Your task to perform on an android device: Go to battery settings Image 0: 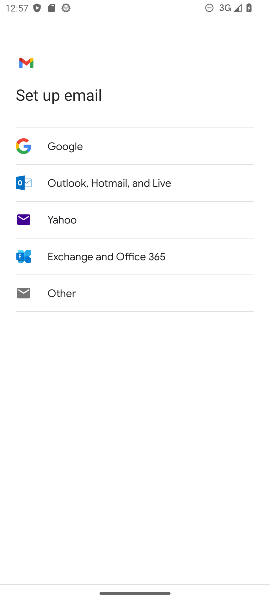
Step 0: press home button
Your task to perform on an android device: Go to battery settings Image 1: 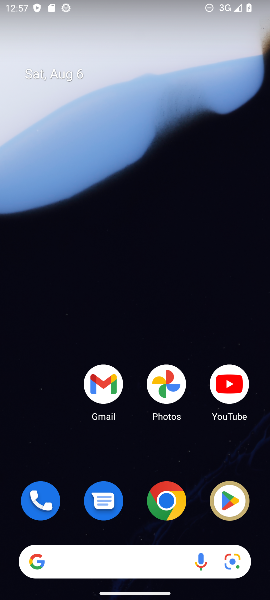
Step 1: drag from (125, 241) to (113, 150)
Your task to perform on an android device: Go to battery settings Image 2: 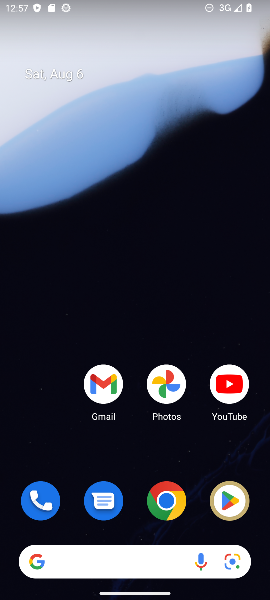
Step 2: drag from (130, 354) to (130, 225)
Your task to perform on an android device: Go to battery settings Image 3: 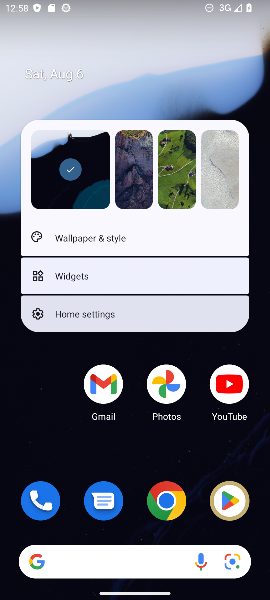
Step 3: click (138, 504)
Your task to perform on an android device: Go to battery settings Image 4: 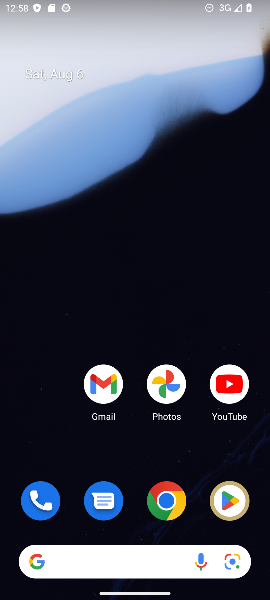
Step 4: drag from (131, 129) to (131, 1)
Your task to perform on an android device: Go to battery settings Image 5: 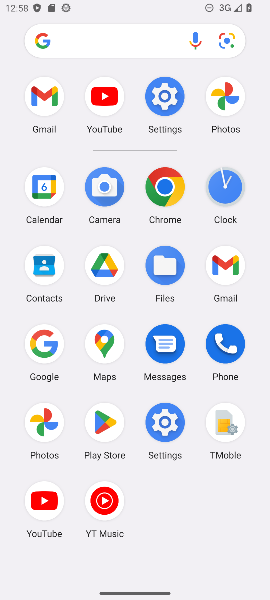
Step 5: click (161, 420)
Your task to perform on an android device: Go to battery settings Image 6: 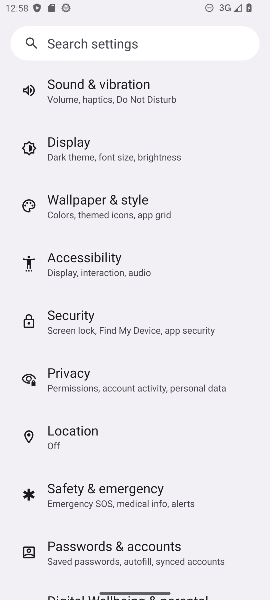
Step 6: drag from (87, 181) to (97, 488)
Your task to perform on an android device: Go to battery settings Image 7: 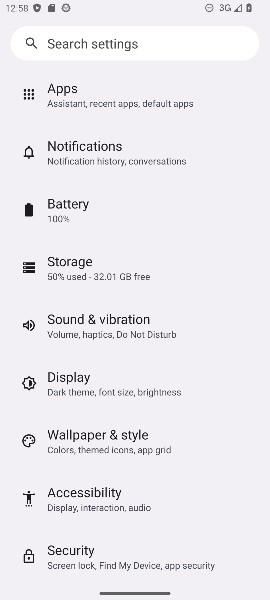
Step 7: click (65, 212)
Your task to perform on an android device: Go to battery settings Image 8: 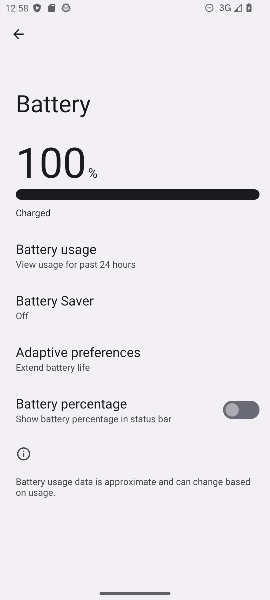
Step 8: task complete